Your task to perform on an android device: Do I have any events tomorrow? Image 0: 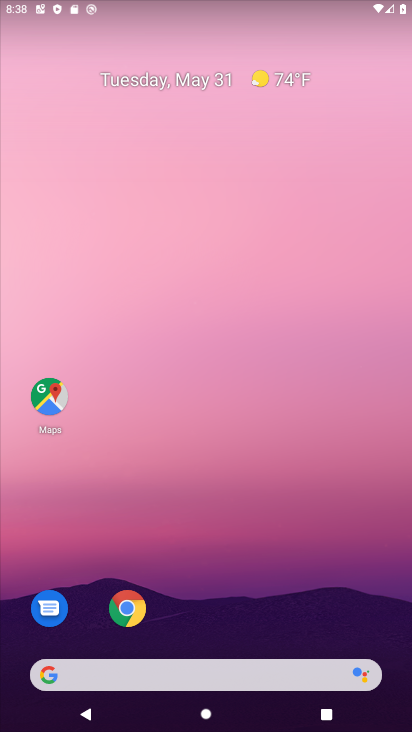
Step 0: drag from (199, 627) to (141, 172)
Your task to perform on an android device: Do I have any events tomorrow? Image 1: 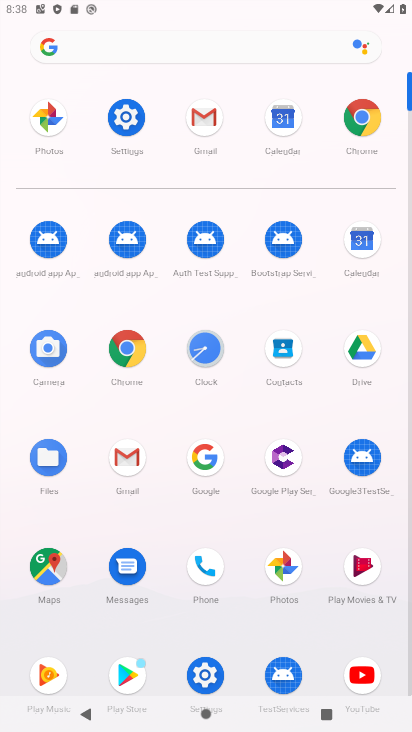
Step 1: click (357, 253)
Your task to perform on an android device: Do I have any events tomorrow? Image 2: 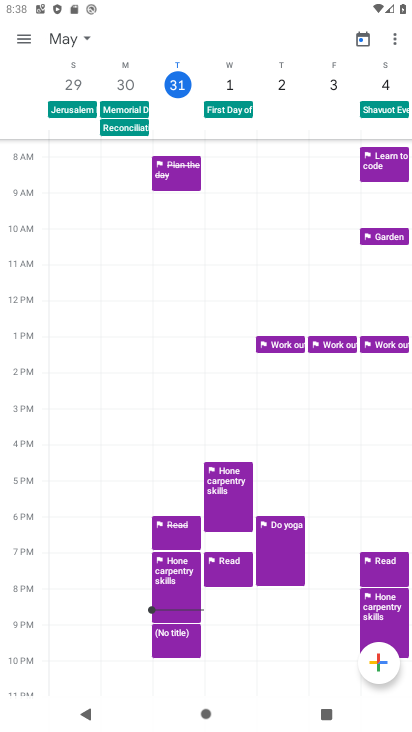
Step 2: click (231, 81)
Your task to perform on an android device: Do I have any events tomorrow? Image 3: 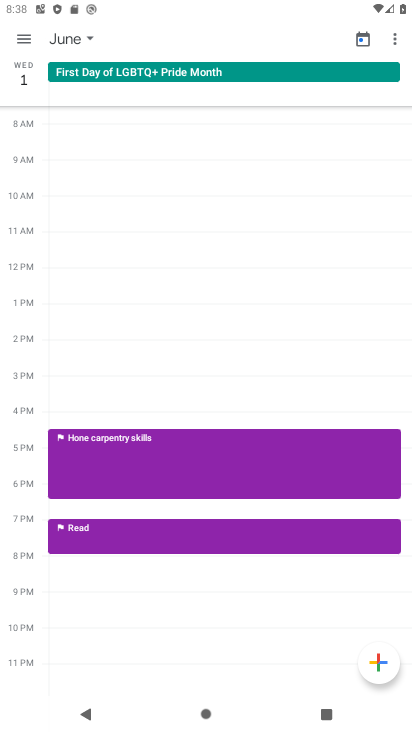
Step 3: task complete